Your task to perform on an android device: set the timer Image 0: 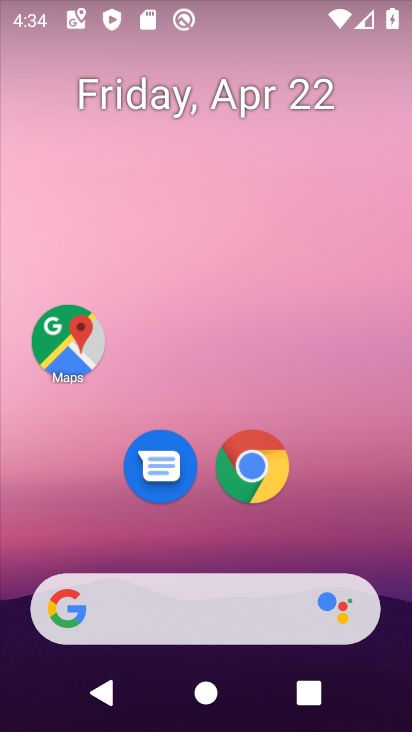
Step 0: drag from (396, 567) to (303, 131)
Your task to perform on an android device: set the timer Image 1: 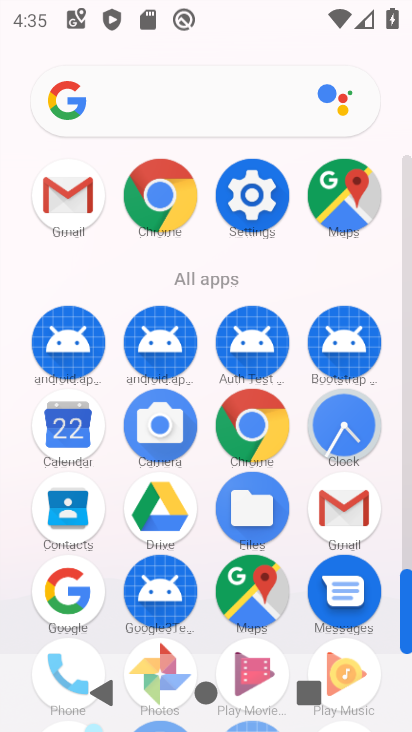
Step 1: click (357, 424)
Your task to perform on an android device: set the timer Image 2: 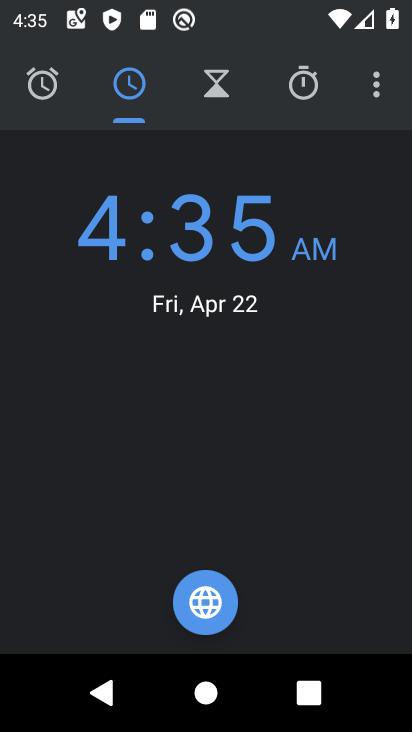
Step 2: click (220, 102)
Your task to perform on an android device: set the timer Image 3: 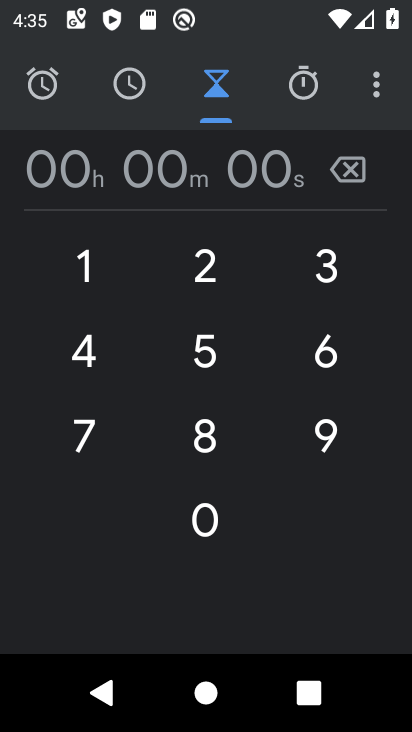
Step 3: type "10000"
Your task to perform on an android device: set the timer Image 4: 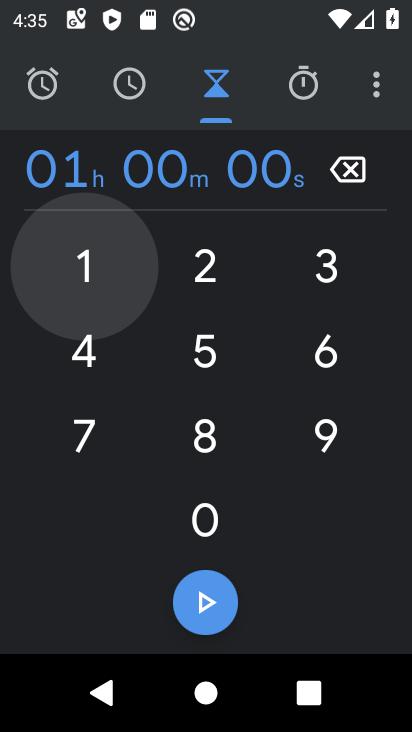
Step 4: click (226, 614)
Your task to perform on an android device: set the timer Image 5: 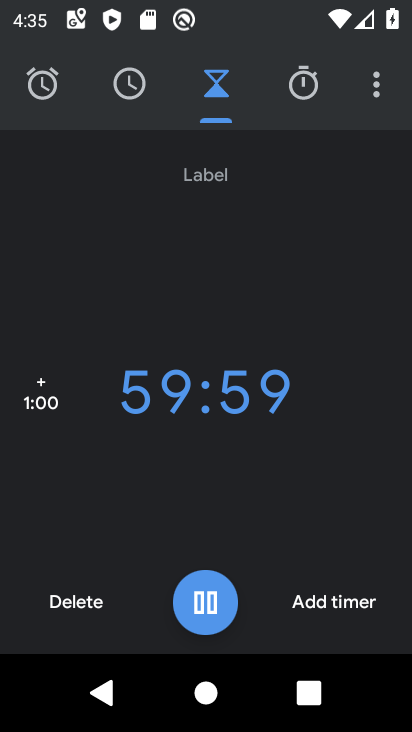
Step 5: task complete